Your task to perform on an android device: change the upload size in google photos Image 0: 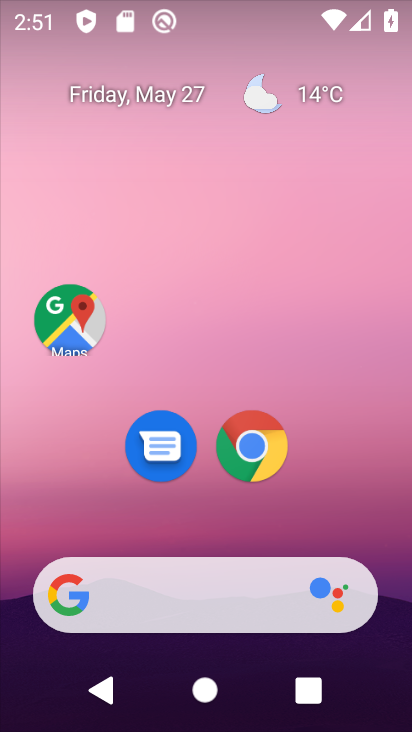
Step 0: press home button
Your task to perform on an android device: change the upload size in google photos Image 1: 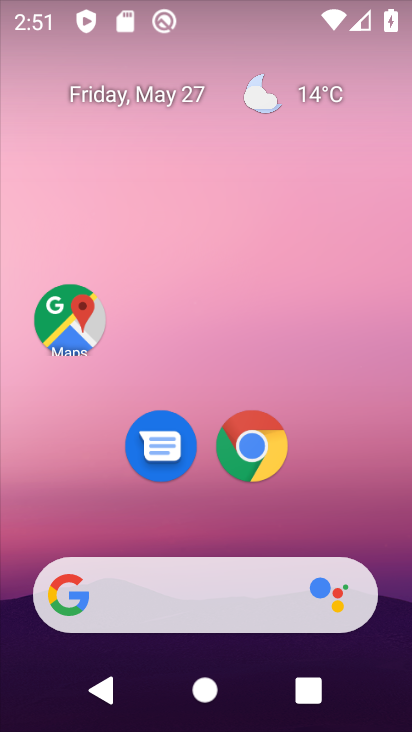
Step 1: drag from (204, 585) to (370, 141)
Your task to perform on an android device: change the upload size in google photos Image 2: 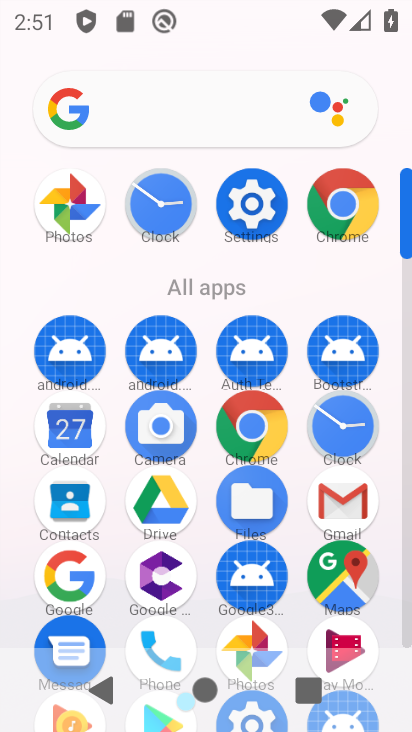
Step 2: drag from (200, 599) to (299, 281)
Your task to perform on an android device: change the upload size in google photos Image 3: 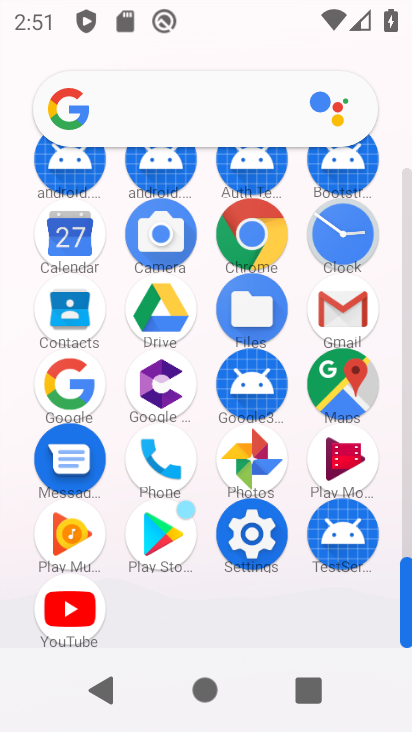
Step 3: click (252, 461)
Your task to perform on an android device: change the upload size in google photos Image 4: 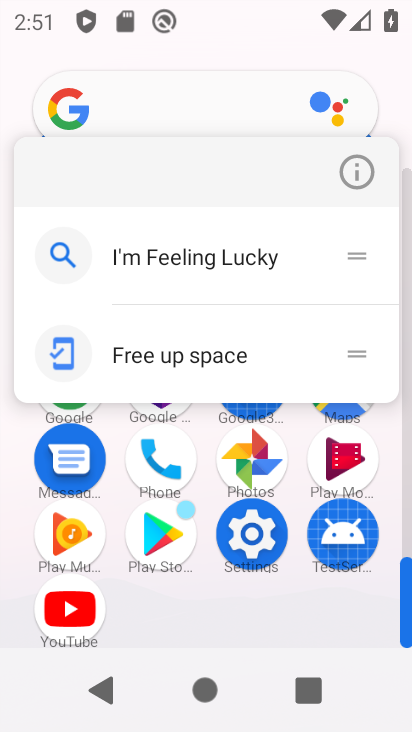
Step 4: click (251, 460)
Your task to perform on an android device: change the upload size in google photos Image 5: 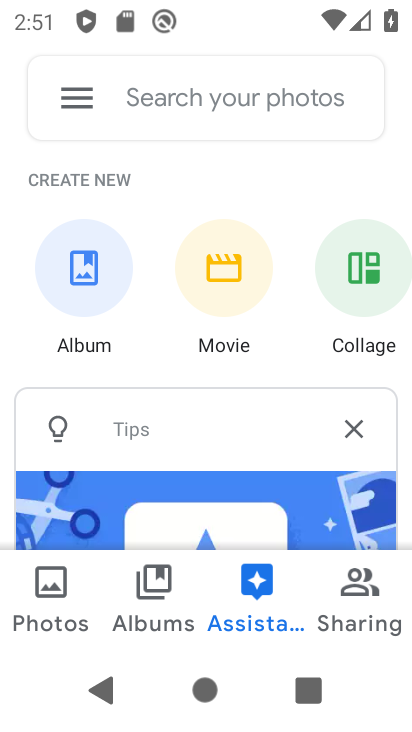
Step 5: click (76, 98)
Your task to perform on an android device: change the upload size in google photos Image 6: 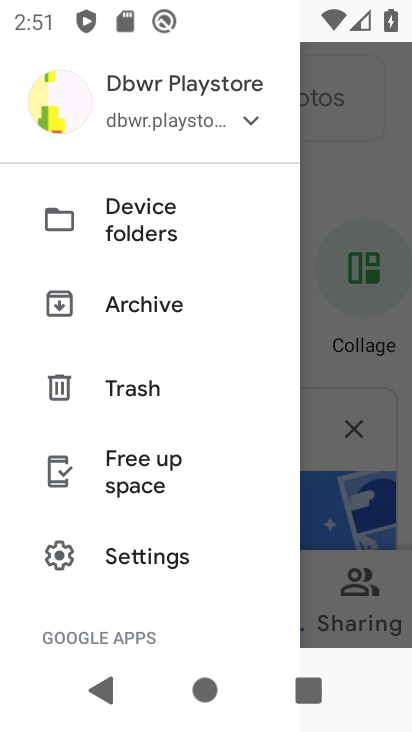
Step 6: click (148, 561)
Your task to perform on an android device: change the upload size in google photos Image 7: 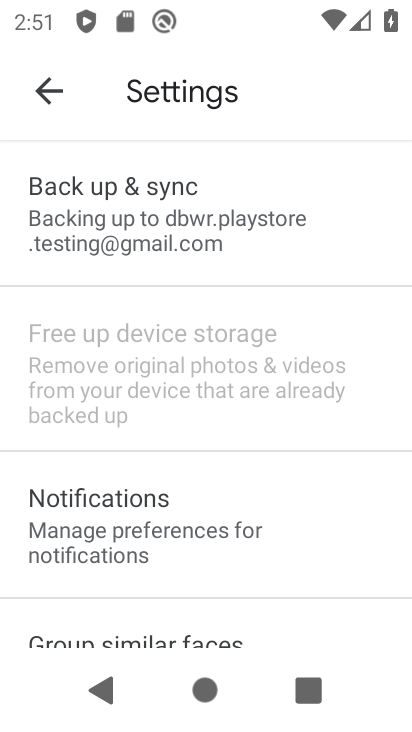
Step 7: click (144, 220)
Your task to perform on an android device: change the upload size in google photos Image 8: 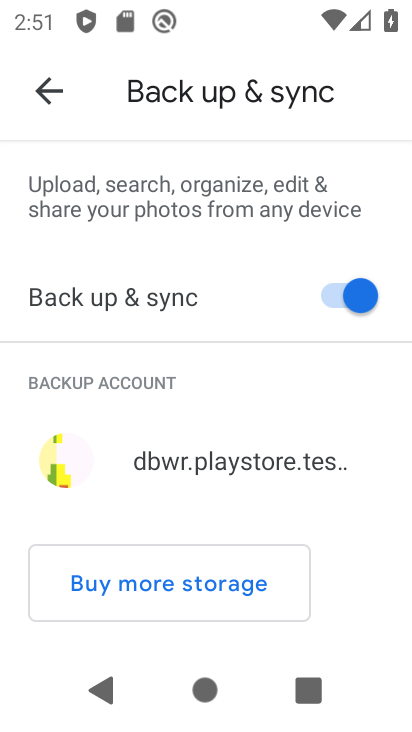
Step 8: drag from (329, 631) to (408, 146)
Your task to perform on an android device: change the upload size in google photos Image 9: 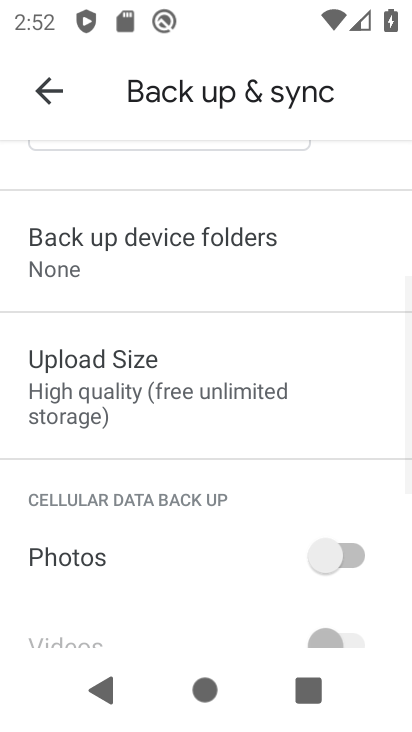
Step 9: click (177, 414)
Your task to perform on an android device: change the upload size in google photos Image 10: 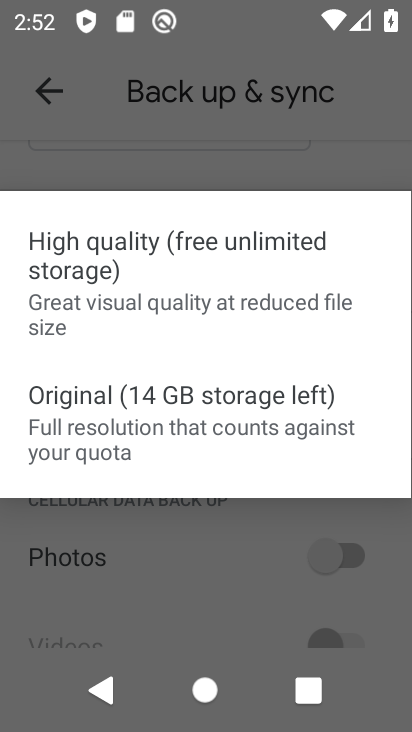
Step 10: click (96, 424)
Your task to perform on an android device: change the upload size in google photos Image 11: 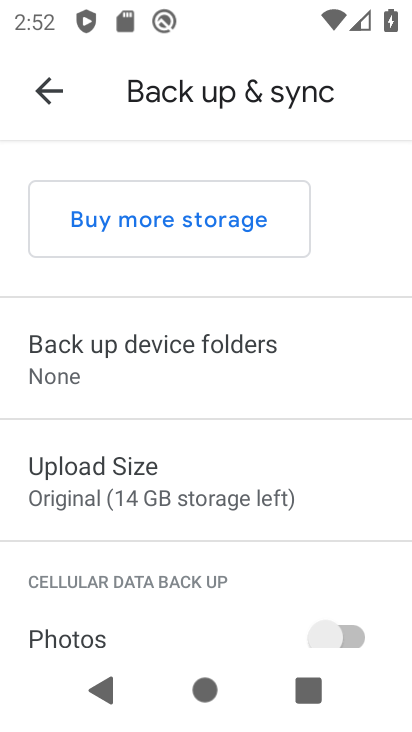
Step 11: task complete